Your task to perform on an android device: Go to privacy settings Image 0: 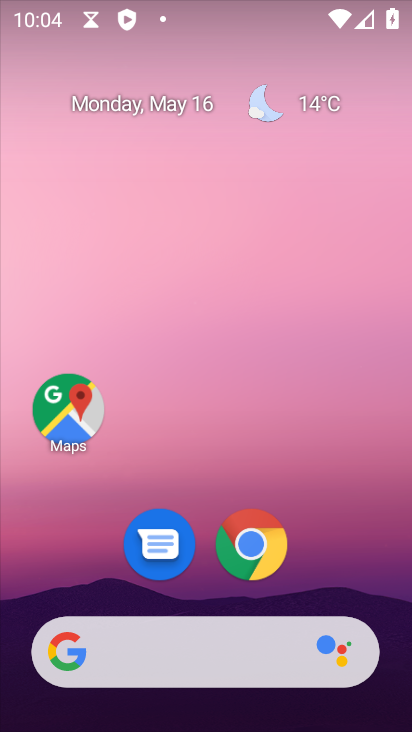
Step 0: drag from (318, 577) to (394, 177)
Your task to perform on an android device: Go to privacy settings Image 1: 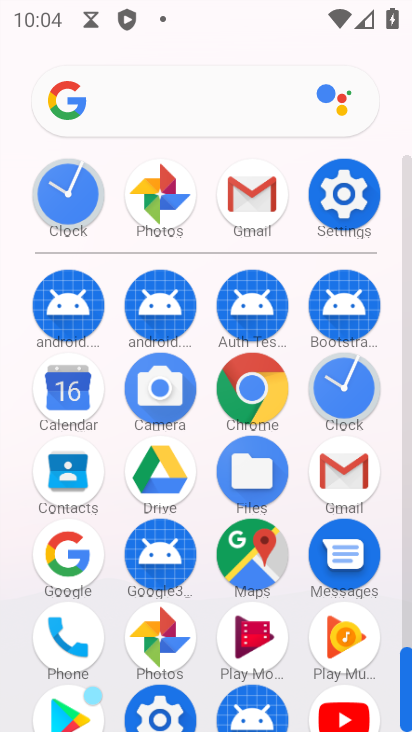
Step 1: click (325, 197)
Your task to perform on an android device: Go to privacy settings Image 2: 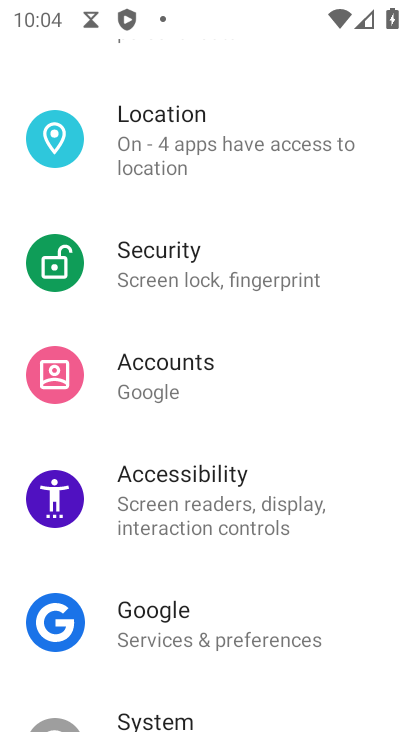
Step 2: drag from (264, 275) to (215, 594)
Your task to perform on an android device: Go to privacy settings Image 3: 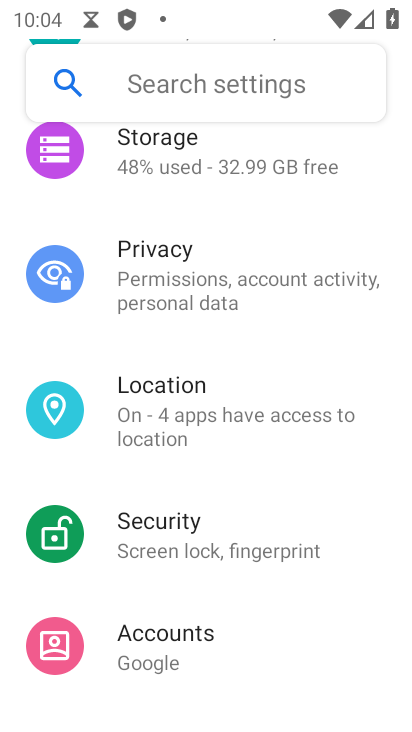
Step 3: click (215, 320)
Your task to perform on an android device: Go to privacy settings Image 4: 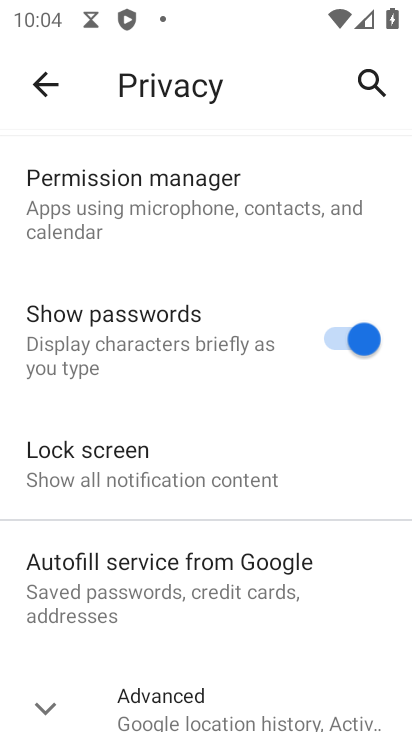
Step 4: task complete